Your task to perform on an android device: Open Google Maps Image 0: 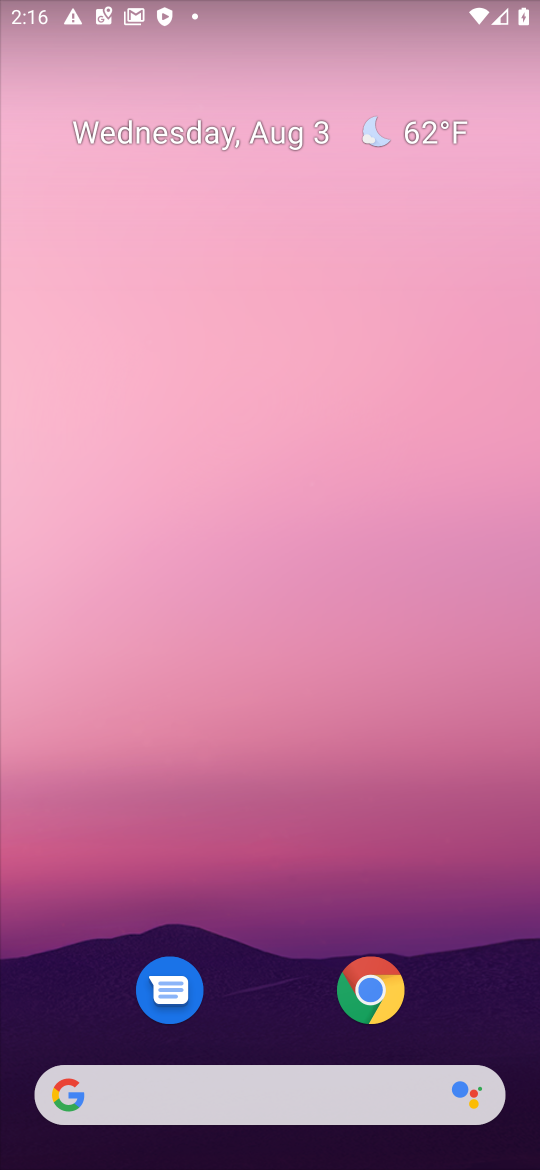
Step 0: drag from (242, 1058) to (270, 461)
Your task to perform on an android device: Open Google Maps Image 1: 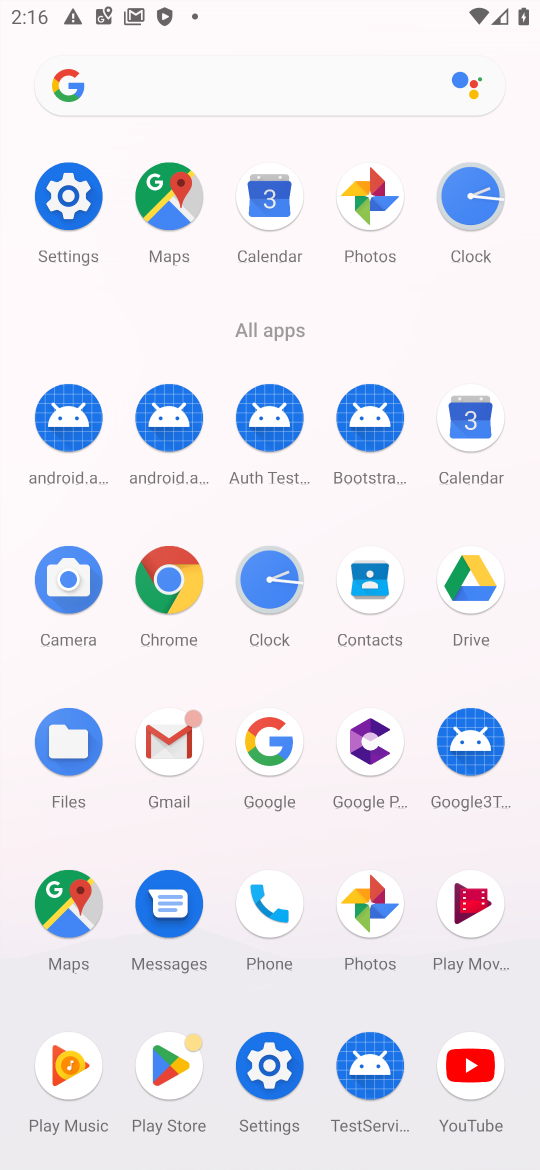
Step 1: click (81, 916)
Your task to perform on an android device: Open Google Maps Image 2: 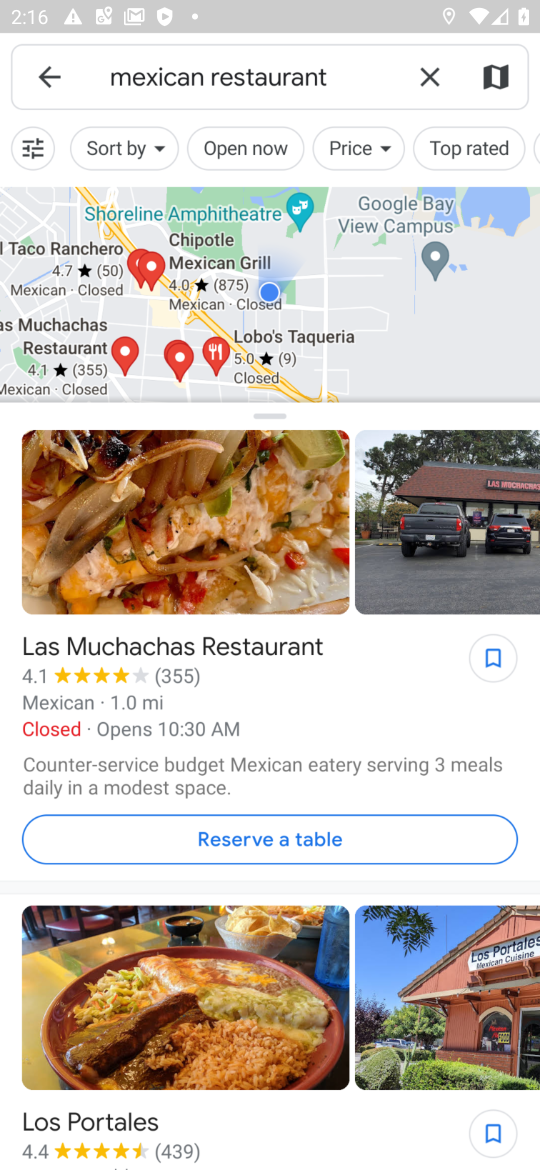
Step 2: click (426, 69)
Your task to perform on an android device: Open Google Maps Image 3: 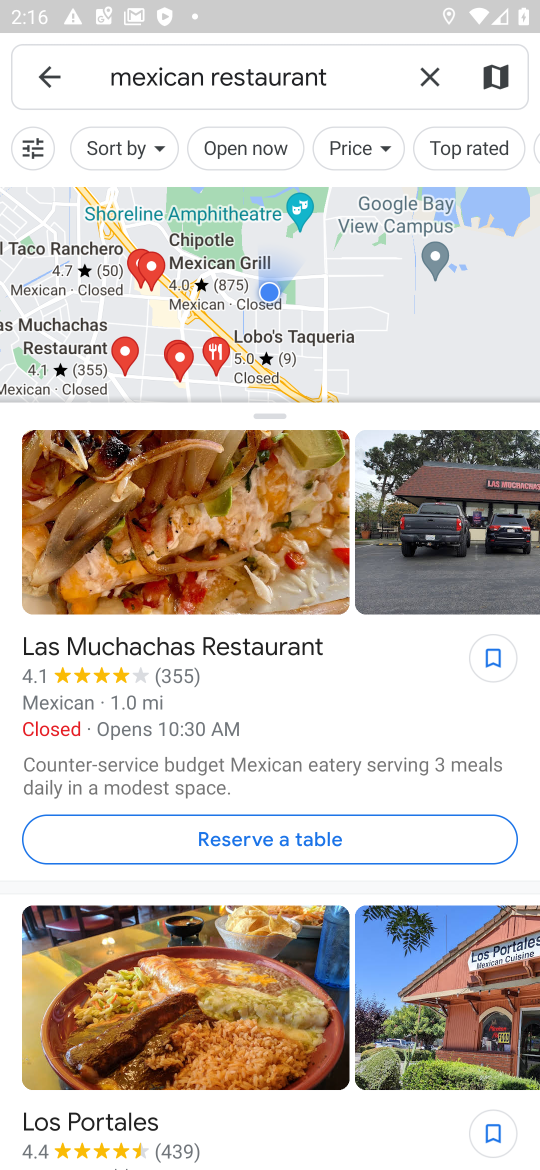
Step 3: click (433, 81)
Your task to perform on an android device: Open Google Maps Image 4: 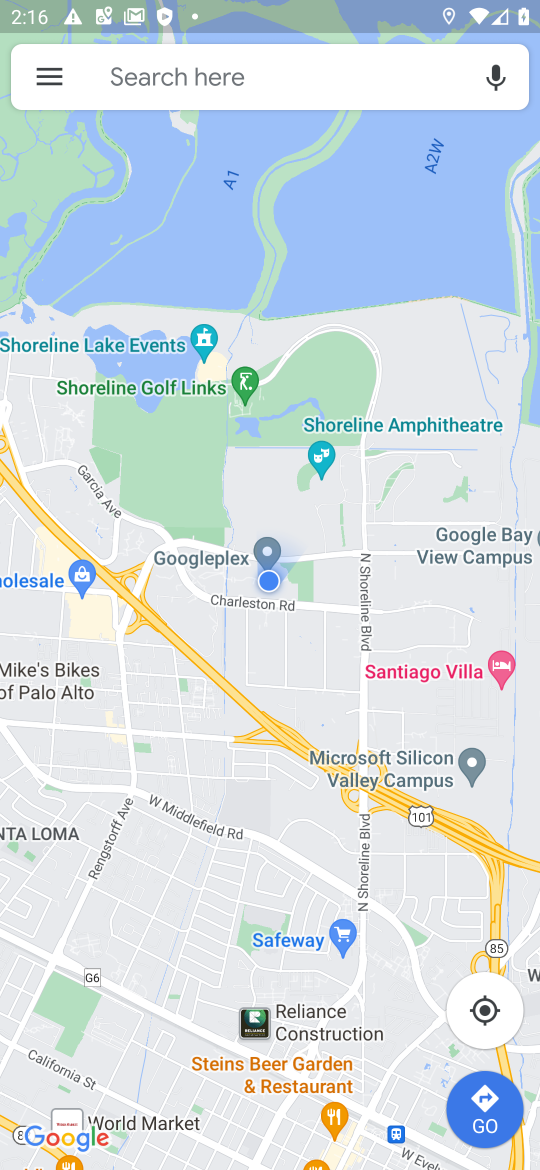
Step 4: task complete